Your task to perform on an android device: turn off location history Image 0: 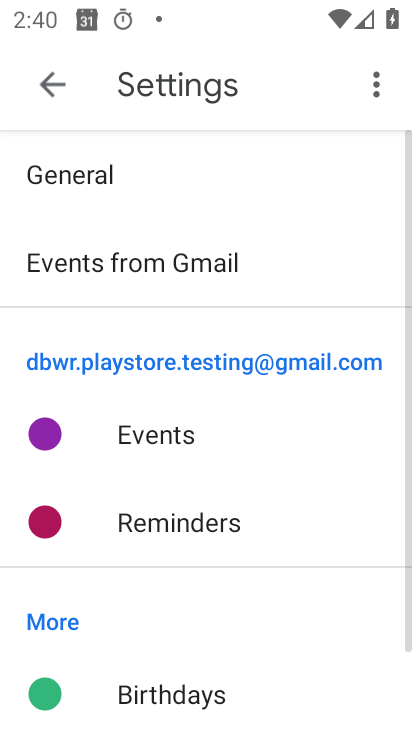
Step 0: press home button
Your task to perform on an android device: turn off location history Image 1: 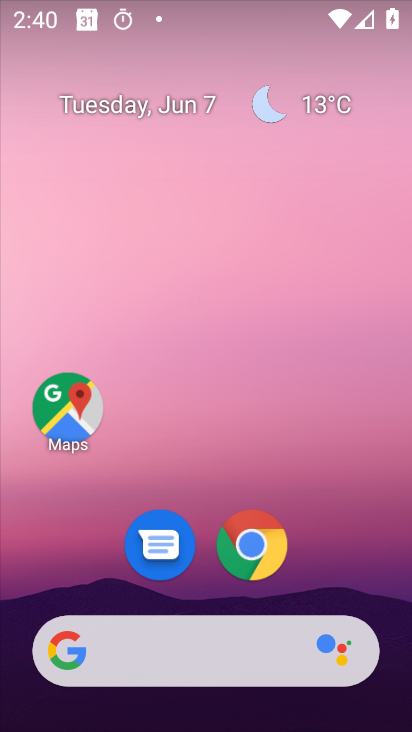
Step 1: drag from (364, 578) to (296, 45)
Your task to perform on an android device: turn off location history Image 2: 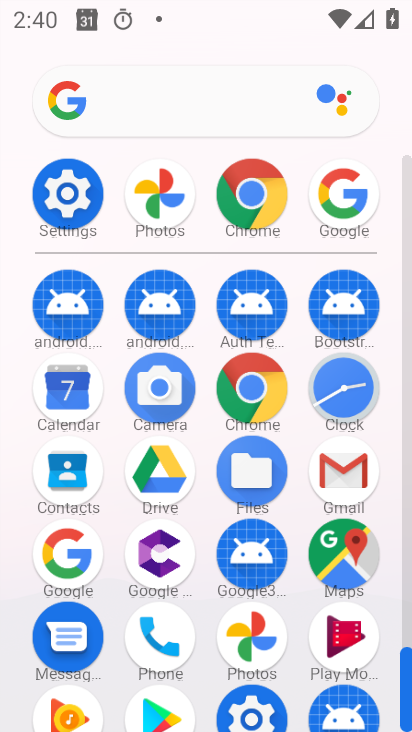
Step 2: click (73, 198)
Your task to perform on an android device: turn off location history Image 3: 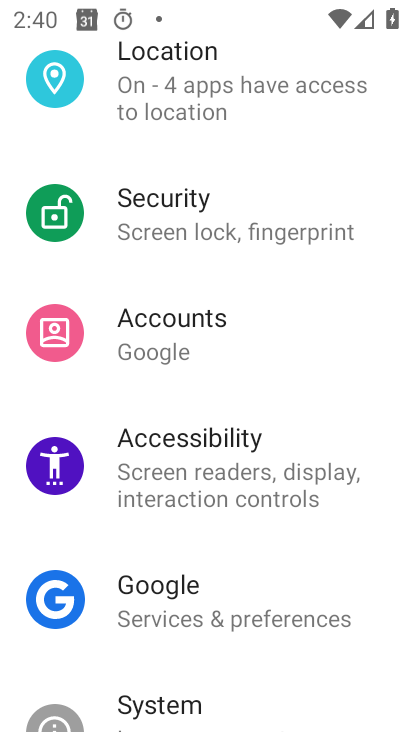
Step 3: click (207, 89)
Your task to perform on an android device: turn off location history Image 4: 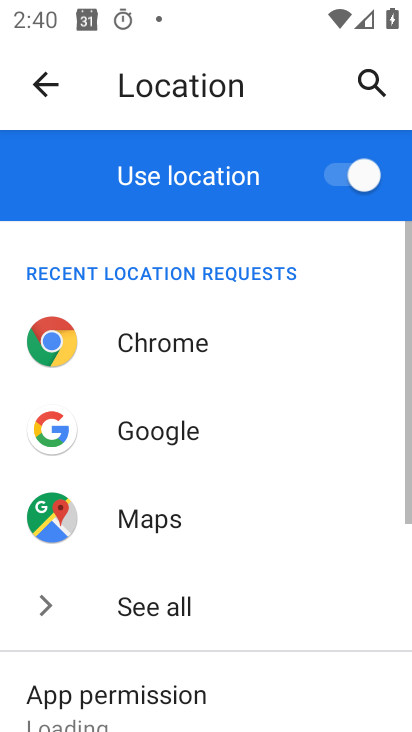
Step 4: drag from (256, 653) to (323, 143)
Your task to perform on an android device: turn off location history Image 5: 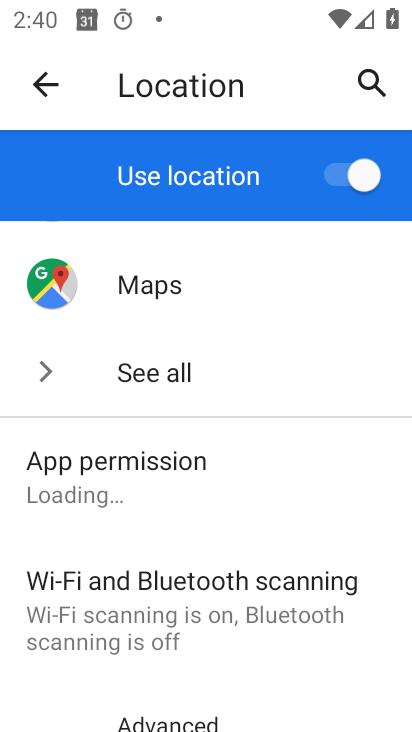
Step 5: drag from (277, 560) to (273, 23)
Your task to perform on an android device: turn off location history Image 6: 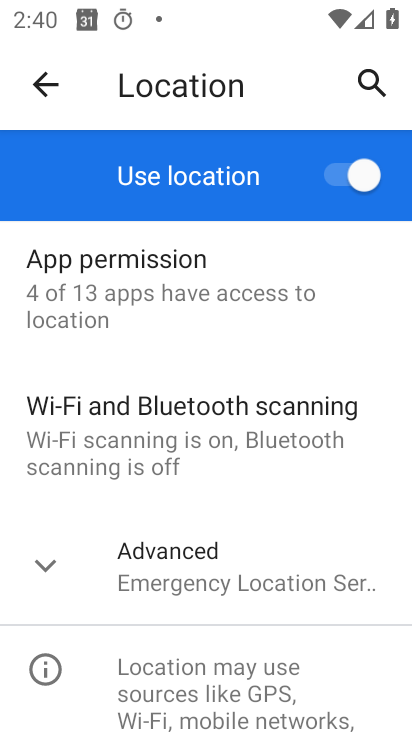
Step 6: click (217, 561)
Your task to perform on an android device: turn off location history Image 7: 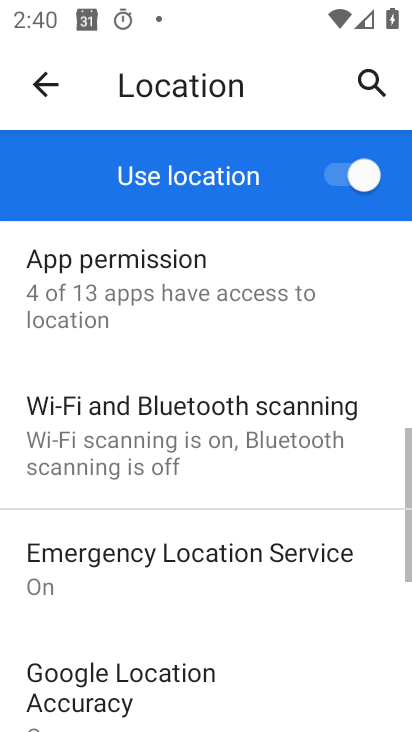
Step 7: drag from (200, 616) to (251, 75)
Your task to perform on an android device: turn off location history Image 8: 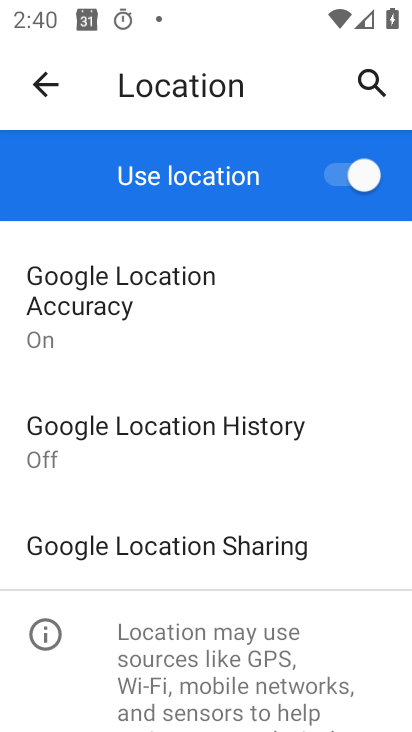
Step 8: click (263, 418)
Your task to perform on an android device: turn off location history Image 9: 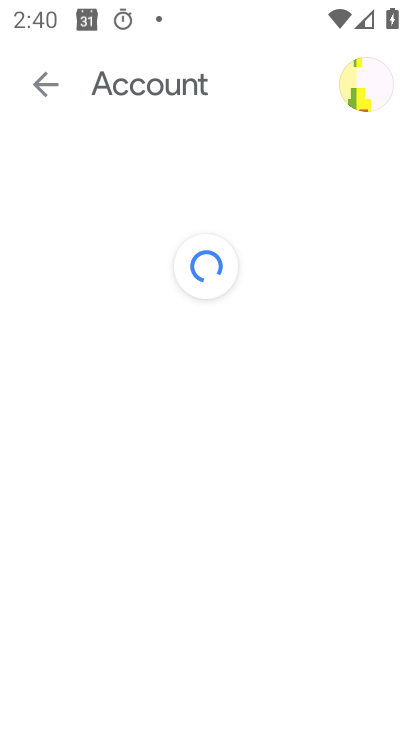
Step 9: task complete